Your task to perform on an android device: Open the Play Movies app and select the watchlist tab. Image 0: 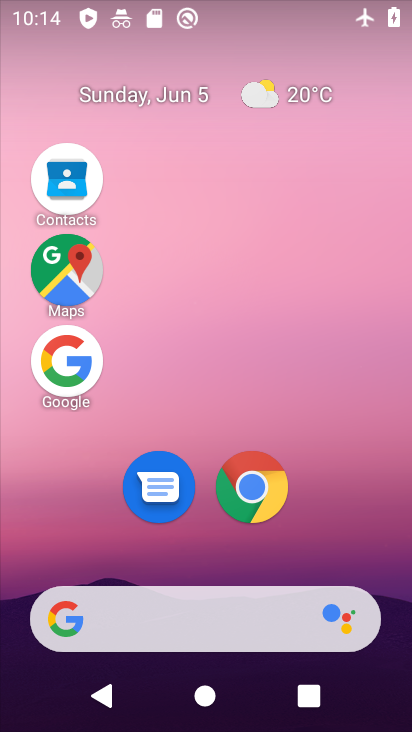
Step 0: drag from (213, 621) to (241, 103)
Your task to perform on an android device: Open the Play Movies app and select the watchlist tab. Image 1: 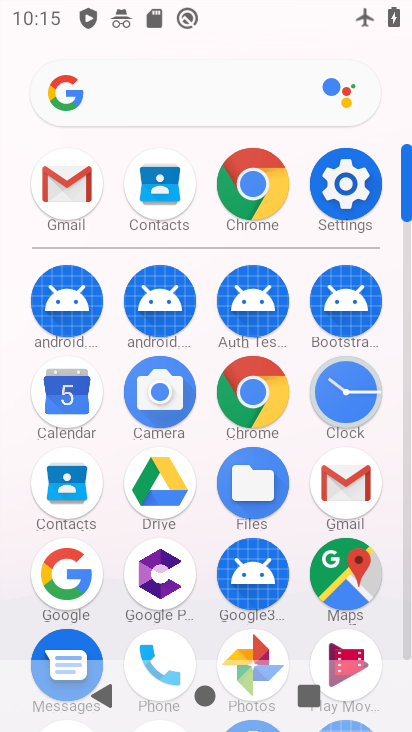
Step 1: drag from (191, 487) to (244, 108)
Your task to perform on an android device: Open the Play Movies app and select the watchlist tab. Image 2: 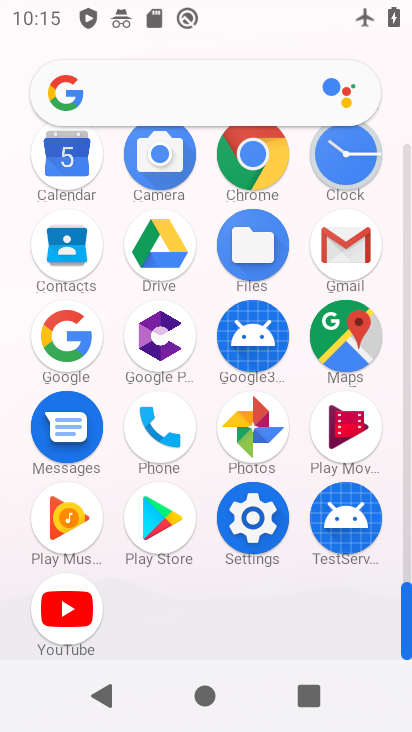
Step 2: click (367, 437)
Your task to perform on an android device: Open the Play Movies app and select the watchlist tab. Image 3: 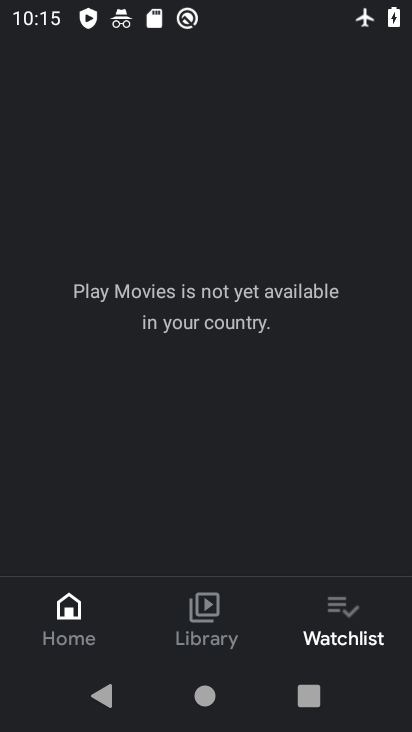
Step 3: click (330, 600)
Your task to perform on an android device: Open the Play Movies app and select the watchlist tab. Image 4: 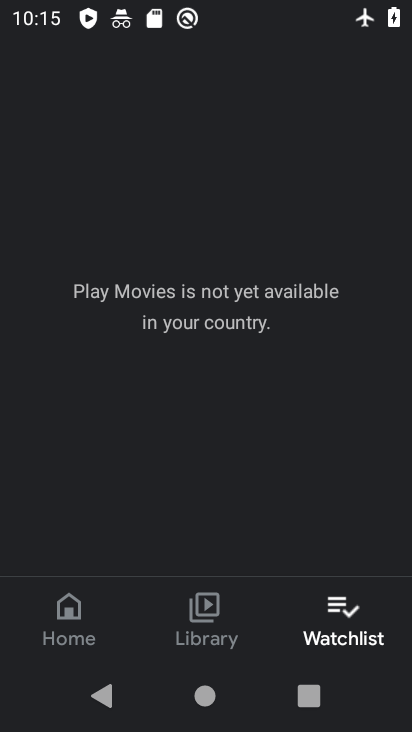
Step 4: click (324, 619)
Your task to perform on an android device: Open the Play Movies app and select the watchlist tab. Image 5: 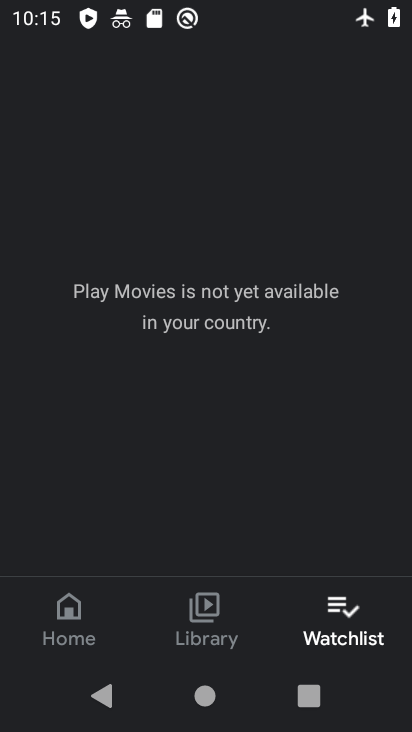
Step 5: task complete